Your task to perform on an android device: Show me the alarms in the clock app Image 0: 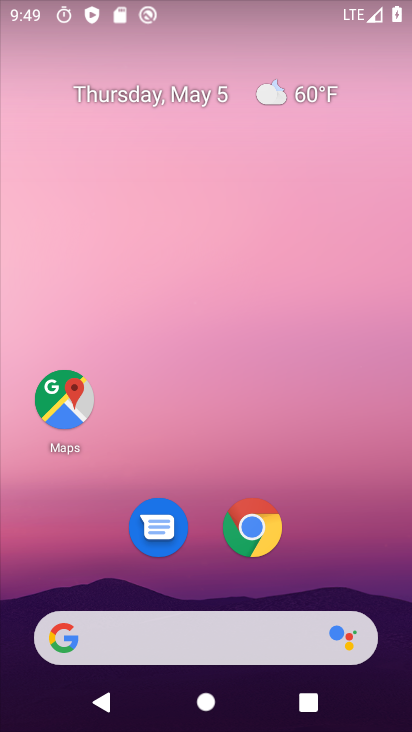
Step 0: drag from (291, 498) to (328, 163)
Your task to perform on an android device: Show me the alarms in the clock app Image 1: 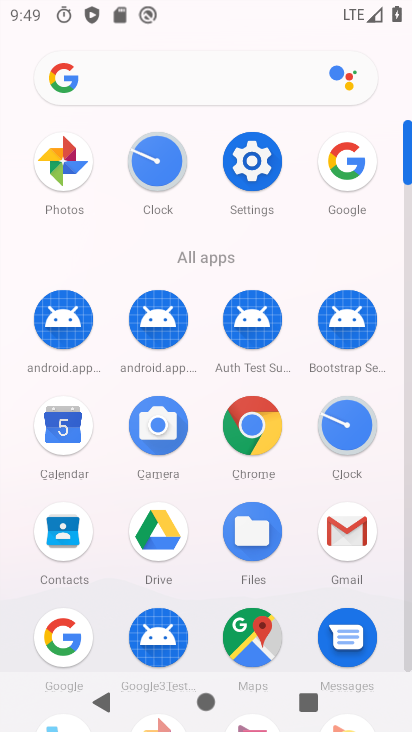
Step 1: click (340, 432)
Your task to perform on an android device: Show me the alarms in the clock app Image 2: 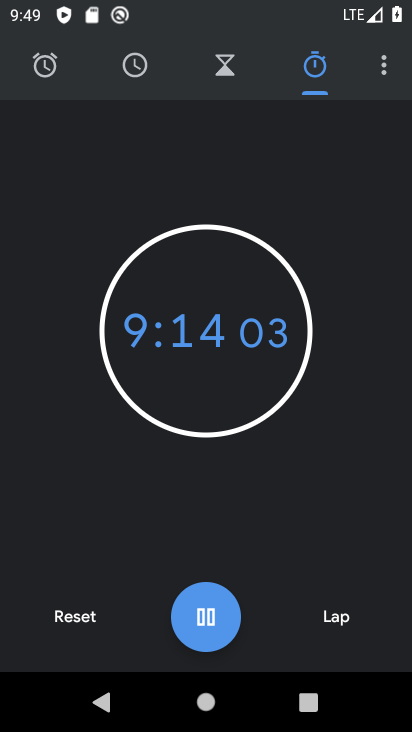
Step 2: click (65, 55)
Your task to perform on an android device: Show me the alarms in the clock app Image 3: 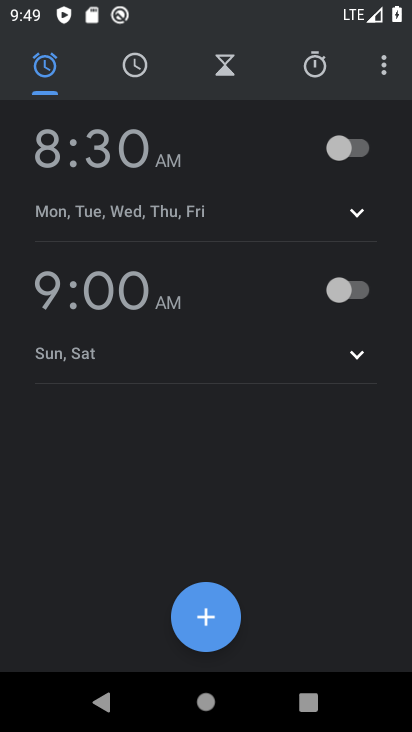
Step 3: task complete